Your task to perform on an android device: open sync settings in chrome Image 0: 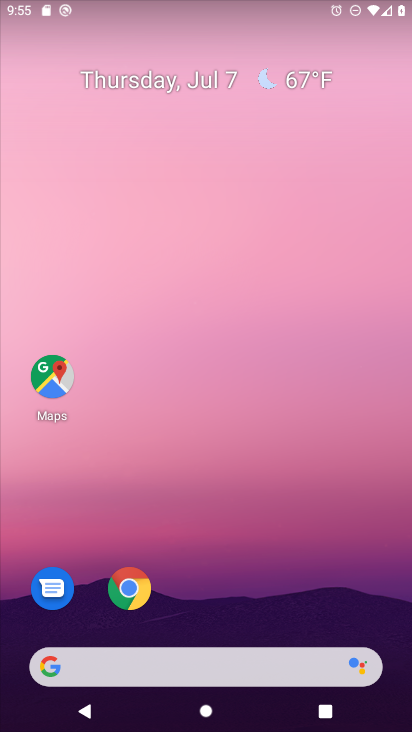
Step 0: click (130, 591)
Your task to perform on an android device: open sync settings in chrome Image 1: 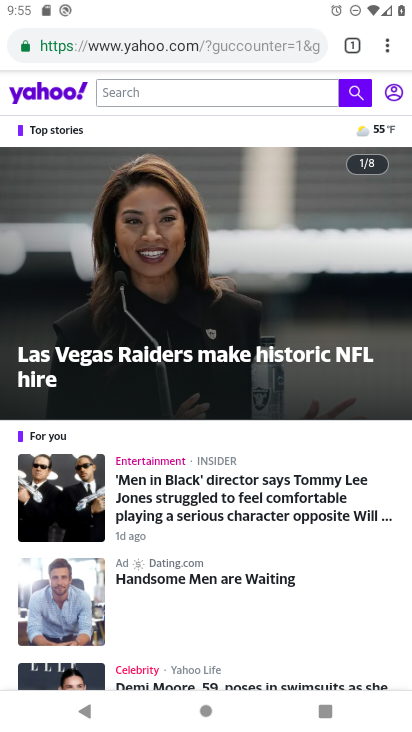
Step 1: click (388, 48)
Your task to perform on an android device: open sync settings in chrome Image 2: 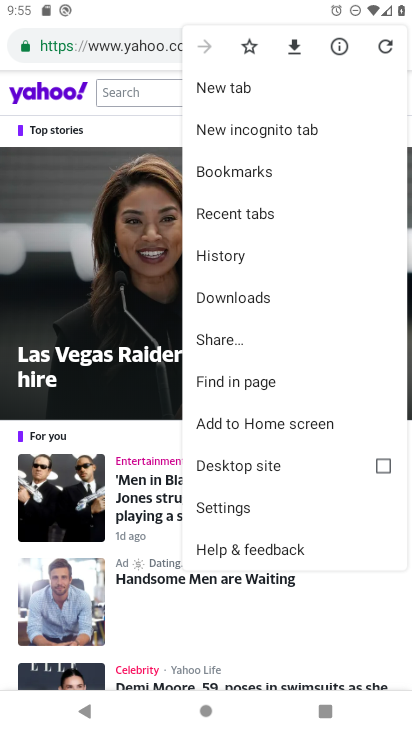
Step 2: click (224, 507)
Your task to perform on an android device: open sync settings in chrome Image 3: 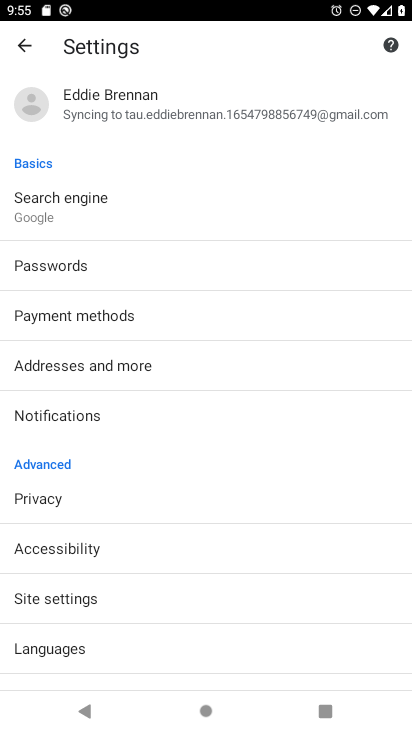
Step 3: click (50, 594)
Your task to perform on an android device: open sync settings in chrome Image 4: 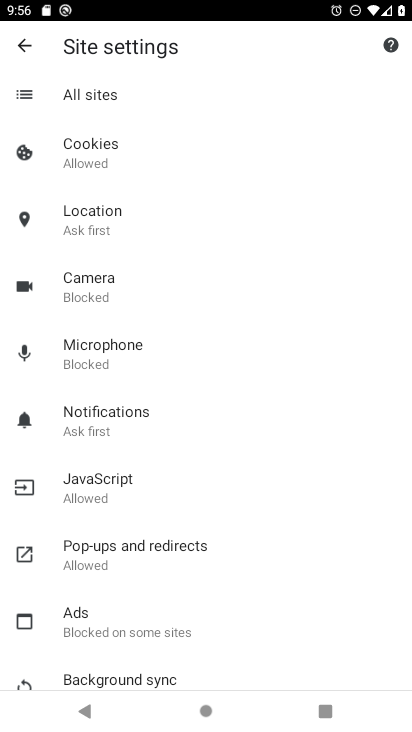
Step 4: click (153, 675)
Your task to perform on an android device: open sync settings in chrome Image 5: 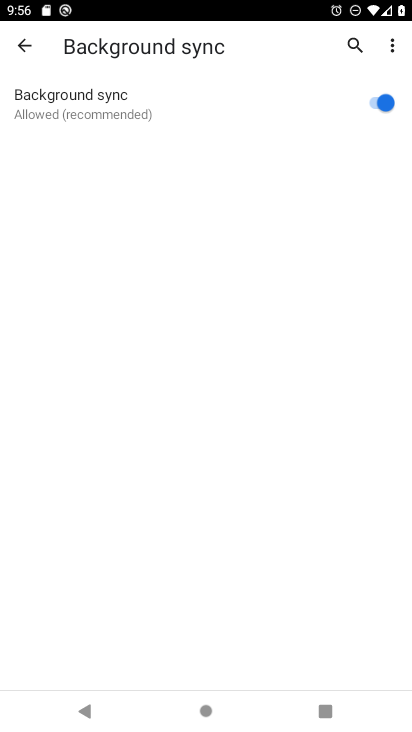
Step 5: task complete